Your task to perform on an android device: turn vacation reply on in the gmail app Image 0: 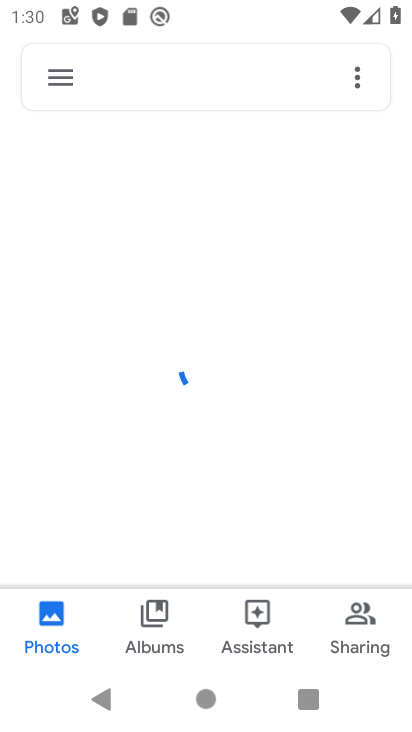
Step 0: press home button
Your task to perform on an android device: turn vacation reply on in the gmail app Image 1: 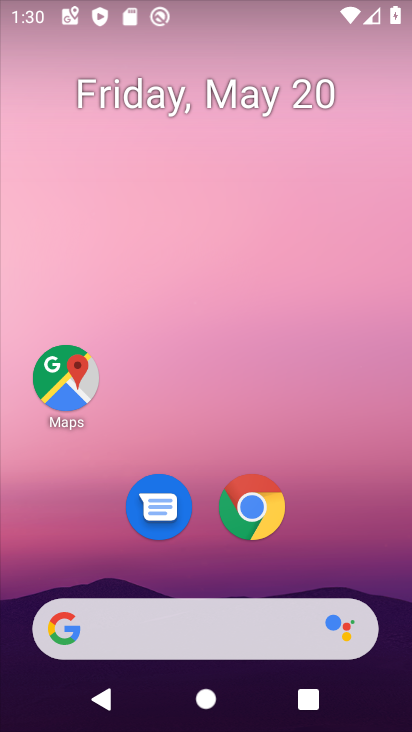
Step 1: drag from (212, 727) to (234, 232)
Your task to perform on an android device: turn vacation reply on in the gmail app Image 2: 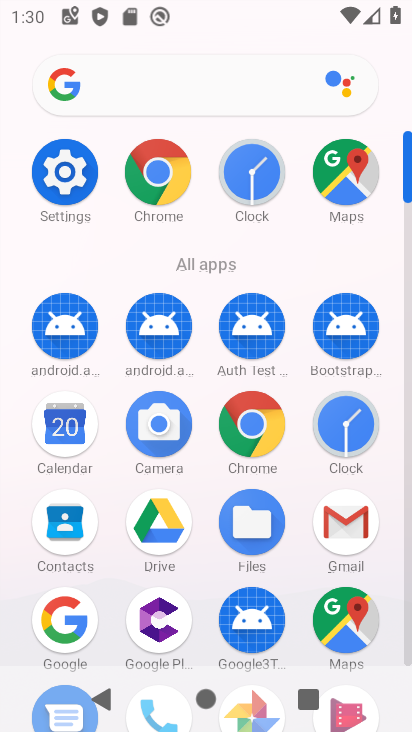
Step 2: click (351, 530)
Your task to perform on an android device: turn vacation reply on in the gmail app Image 3: 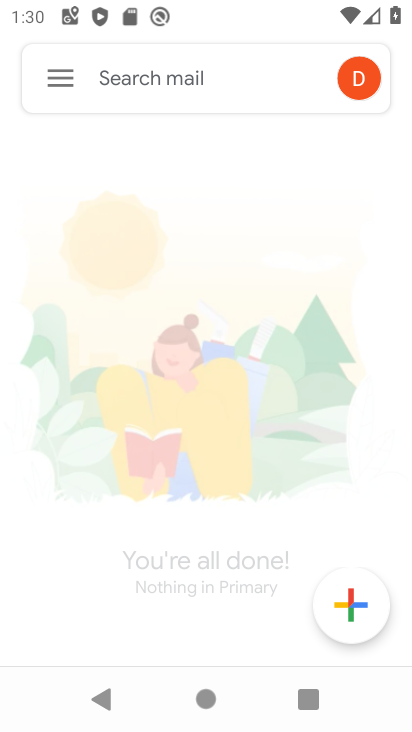
Step 3: click (60, 73)
Your task to perform on an android device: turn vacation reply on in the gmail app Image 4: 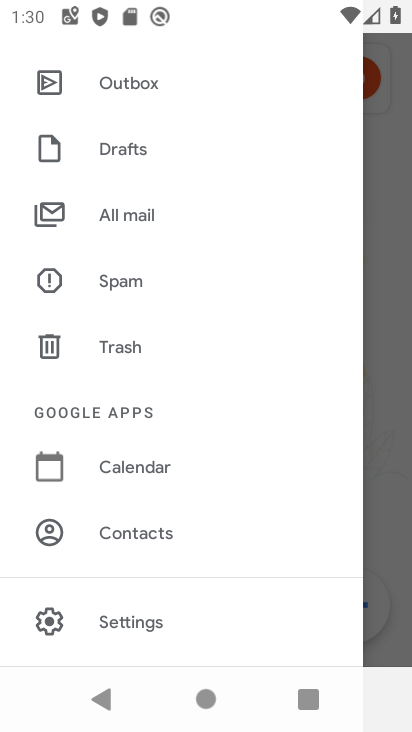
Step 4: click (137, 616)
Your task to perform on an android device: turn vacation reply on in the gmail app Image 5: 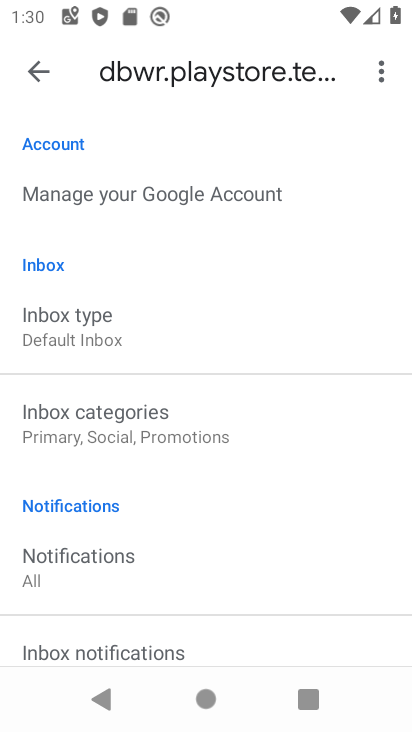
Step 5: drag from (152, 495) to (154, 196)
Your task to perform on an android device: turn vacation reply on in the gmail app Image 6: 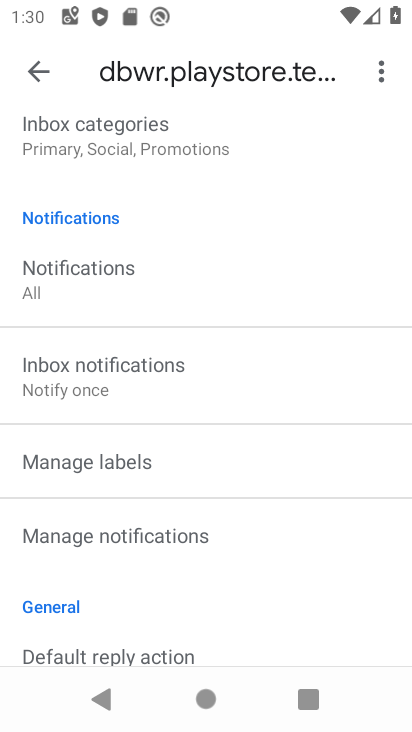
Step 6: drag from (155, 587) to (164, 221)
Your task to perform on an android device: turn vacation reply on in the gmail app Image 7: 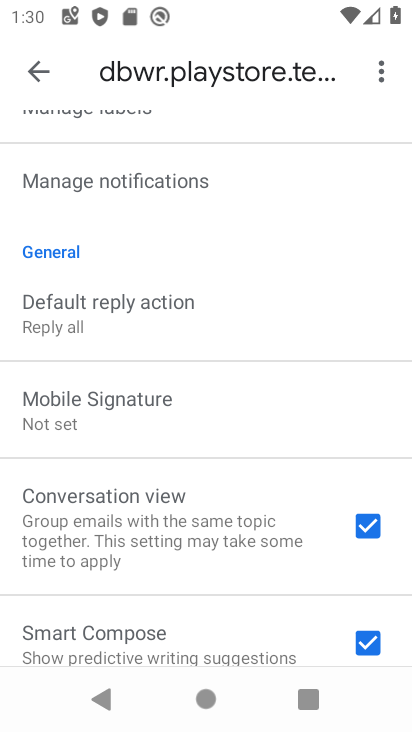
Step 7: drag from (151, 580) to (187, 202)
Your task to perform on an android device: turn vacation reply on in the gmail app Image 8: 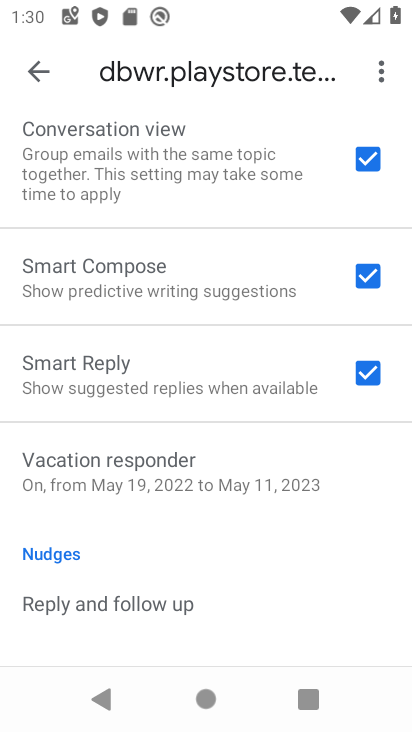
Step 8: click (165, 464)
Your task to perform on an android device: turn vacation reply on in the gmail app Image 9: 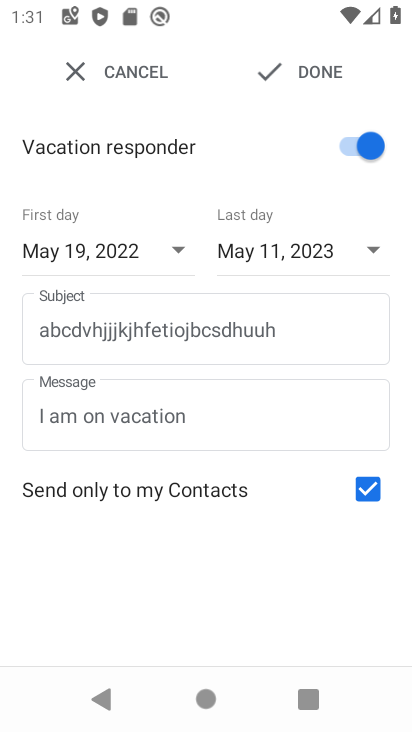
Step 9: task complete